Your task to perform on an android device: change alarm snooze length Image 0: 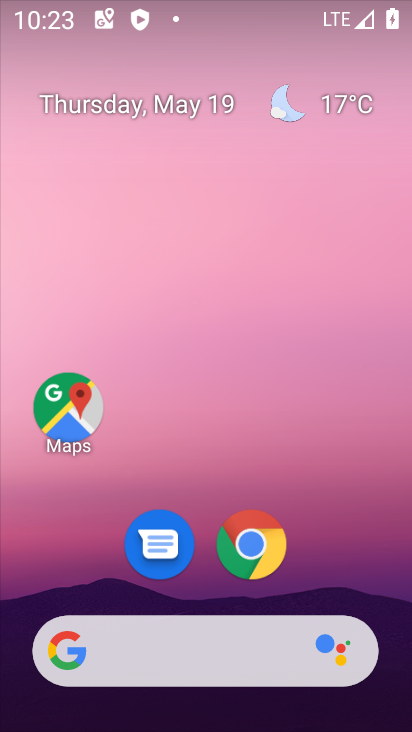
Step 0: drag from (193, 698) to (20, 187)
Your task to perform on an android device: change alarm snooze length Image 1: 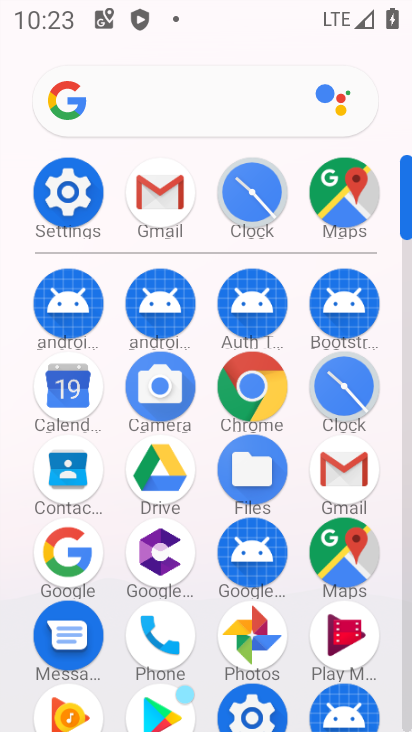
Step 1: click (78, 202)
Your task to perform on an android device: change alarm snooze length Image 2: 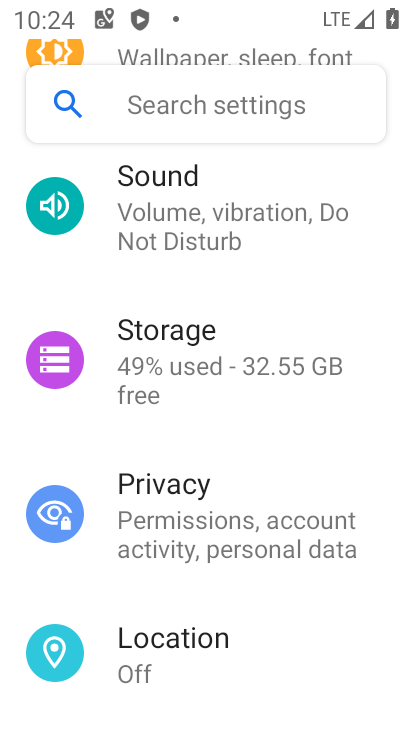
Step 2: press home button
Your task to perform on an android device: change alarm snooze length Image 3: 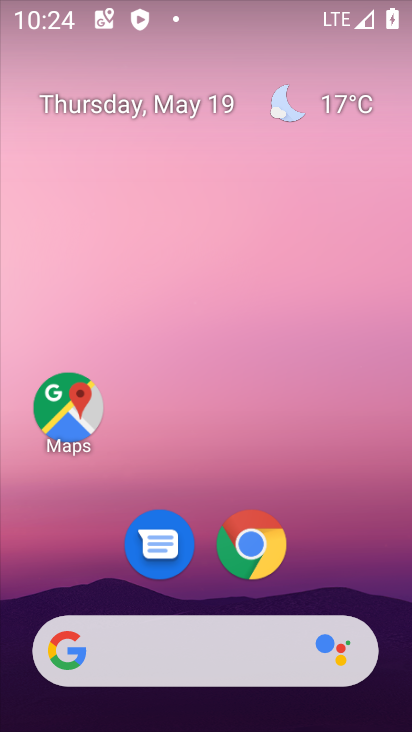
Step 3: drag from (224, 731) to (267, 2)
Your task to perform on an android device: change alarm snooze length Image 4: 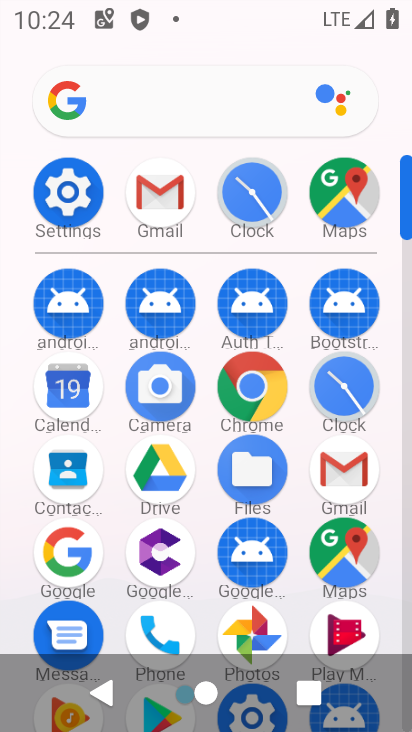
Step 4: click (251, 190)
Your task to perform on an android device: change alarm snooze length Image 5: 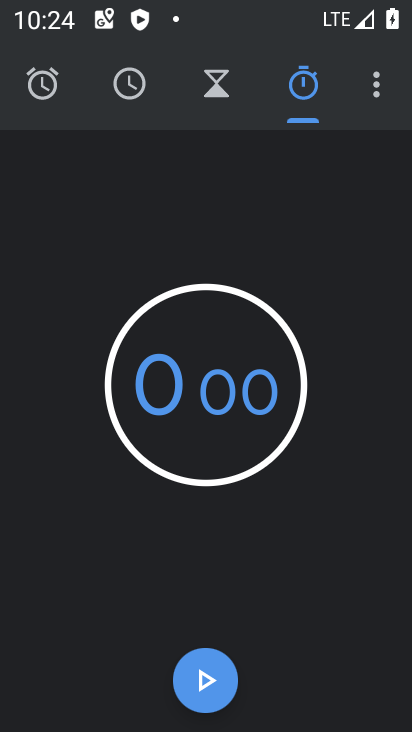
Step 5: click (364, 74)
Your task to perform on an android device: change alarm snooze length Image 6: 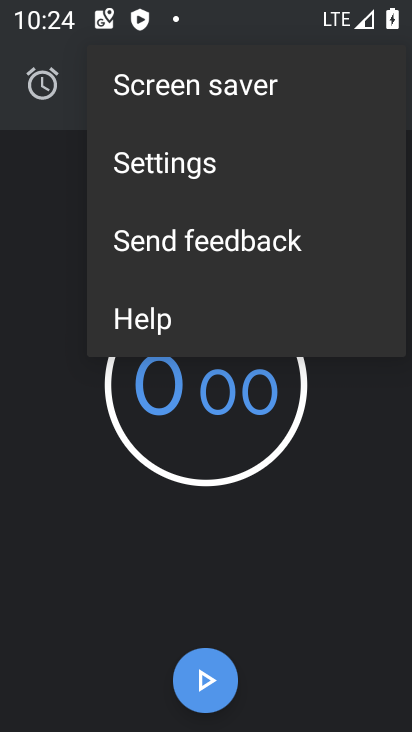
Step 6: click (267, 162)
Your task to perform on an android device: change alarm snooze length Image 7: 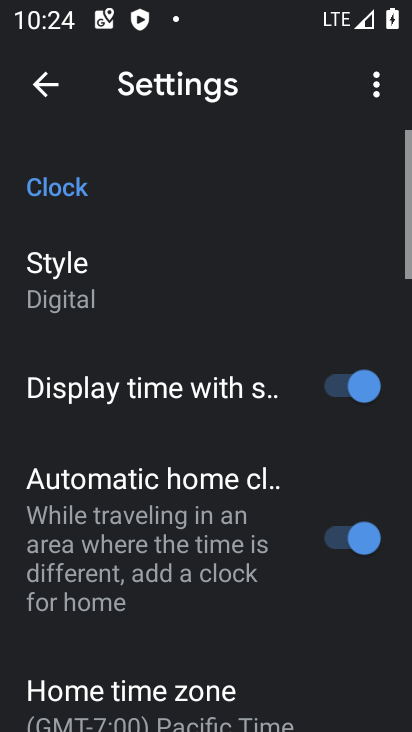
Step 7: drag from (248, 573) to (181, 39)
Your task to perform on an android device: change alarm snooze length Image 8: 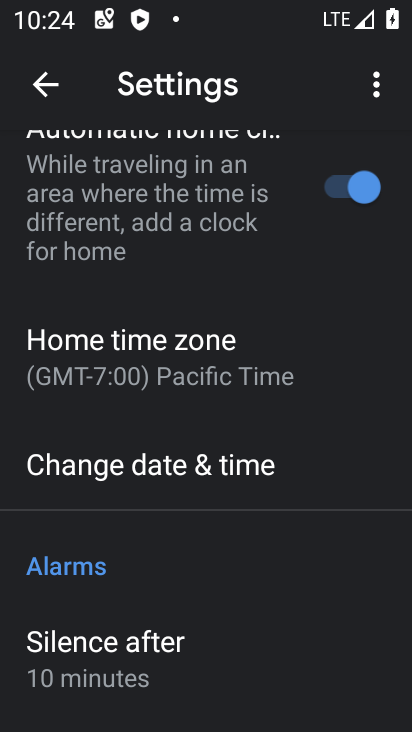
Step 8: drag from (226, 666) to (169, 151)
Your task to perform on an android device: change alarm snooze length Image 9: 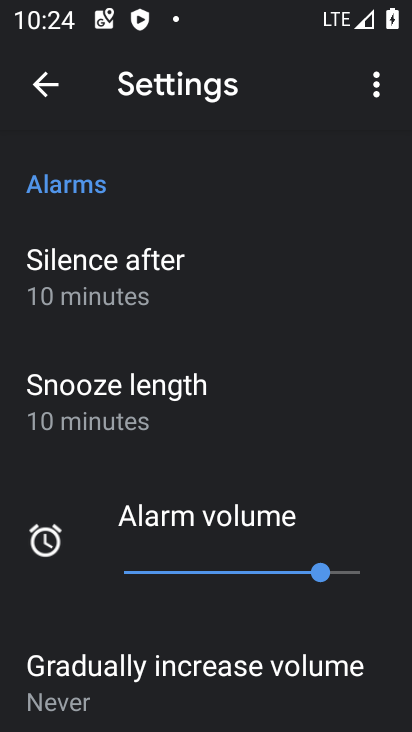
Step 9: click (173, 405)
Your task to perform on an android device: change alarm snooze length Image 10: 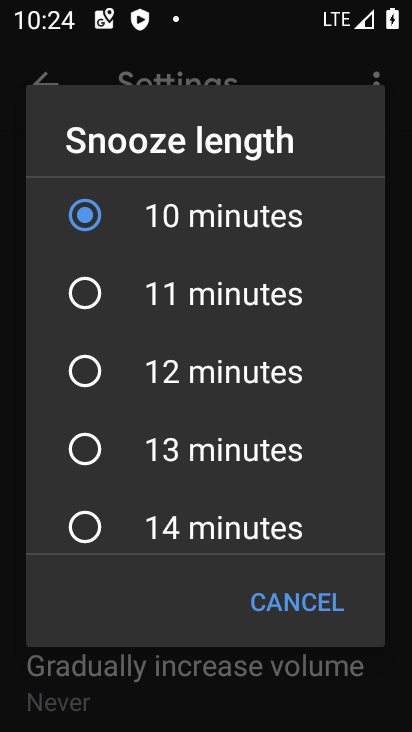
Step 10: click (173, 405)
Your task to perform on an android device: change alarm snooze length Image 11: 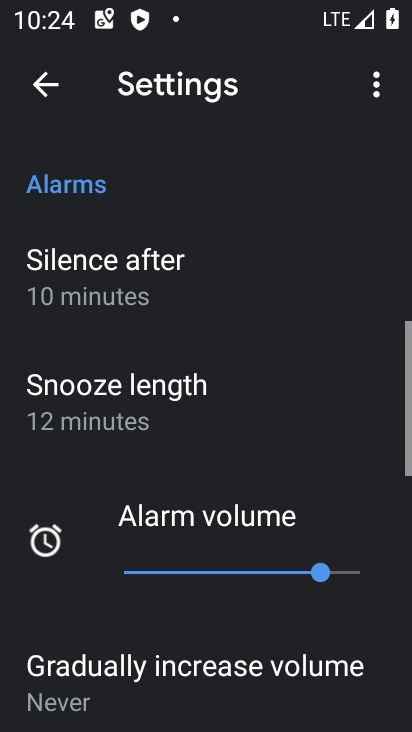
Step 11: task complete